Your task to perform on an android device: Open the stopwatch Image 0: 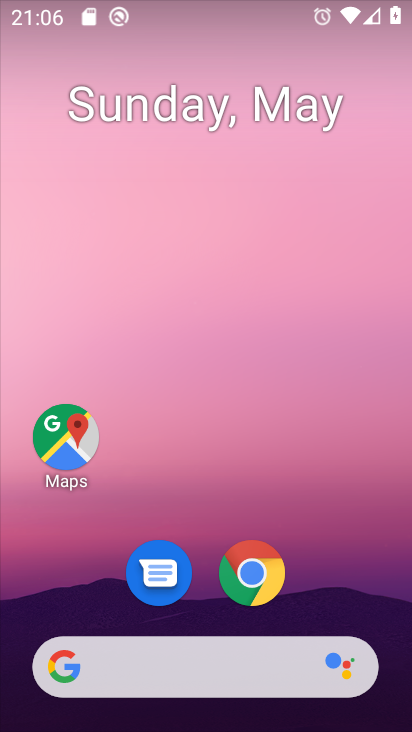
Step 0: drag from (193, 489) to (193, 0)
Your task to perform on an android device: Open the stopwatch Image 1: 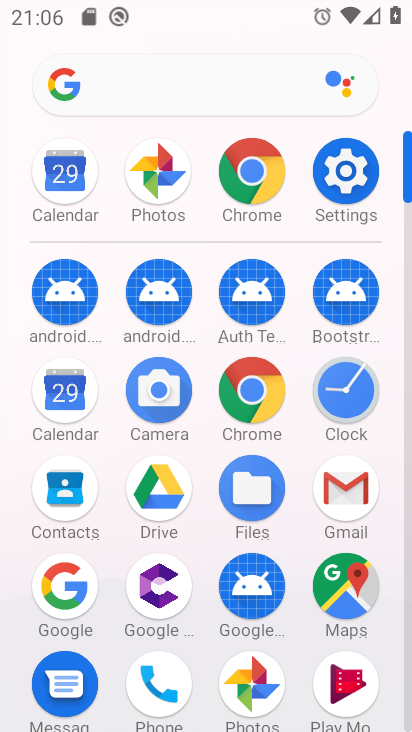
Step 1: click (351, 398)
Your task to perform on an android device: Open the stopwatch Image 2: 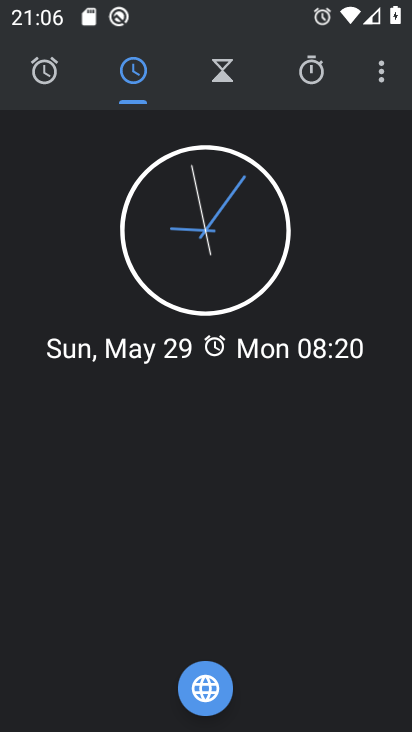
Step 2: click (311, 73)
Your task to perform on an android device: Open the stopwatch Image 3: 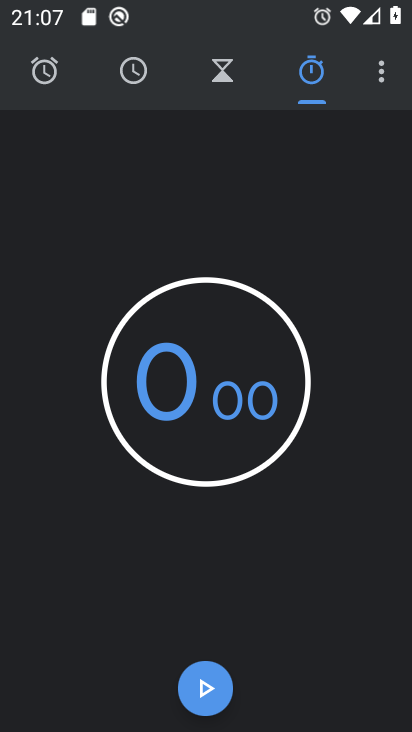
Step 3: task complete